Your task to perform on an android device: open the mobile data screen to see how much data has been used Image 0: 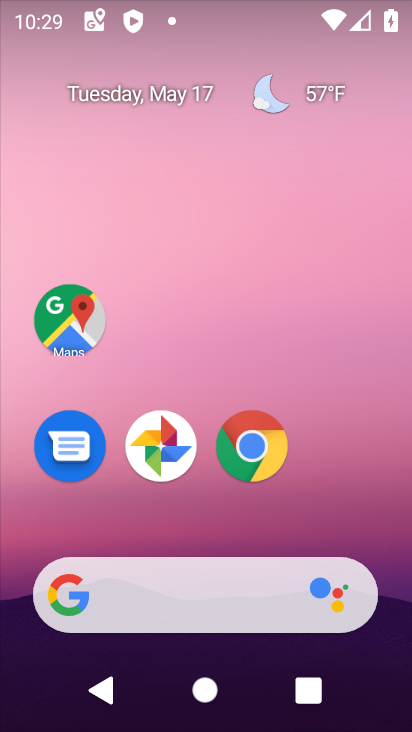
Step 0: drag from (217, 601) to (188, 40)
Your task to perform on an android device: open the mobile data screen to see how much data has been used Image 1: 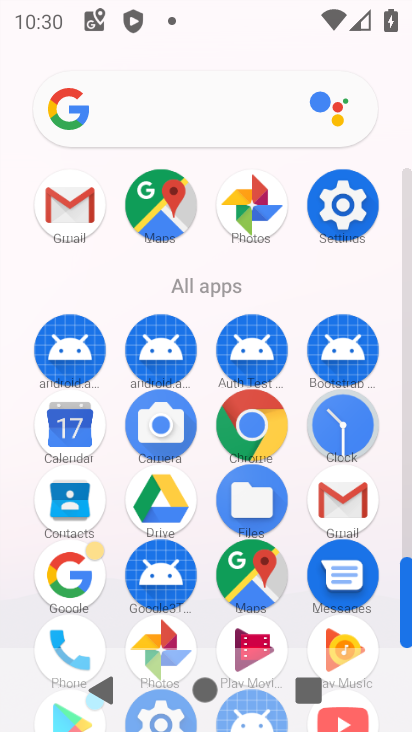
Step 1: click (332, 209)
Your task to perform on an android device: open the mobile data screen to see how much data has been used Image 2: 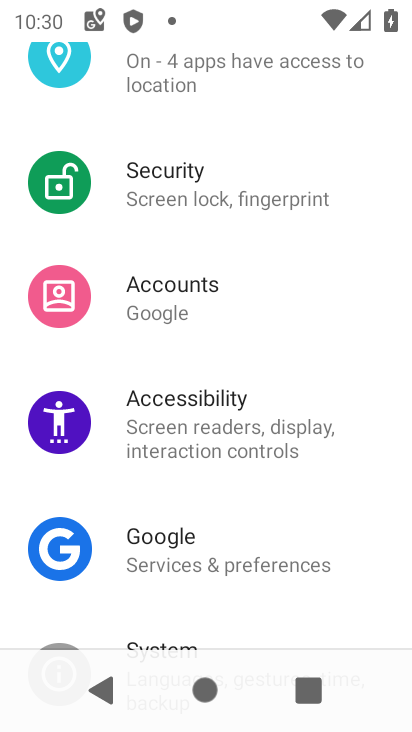
Step 2: drag from (176, 197) to (167, 517)
Your task to perform on an android device: open the mobile data screen to see how much data has been used Image 3: 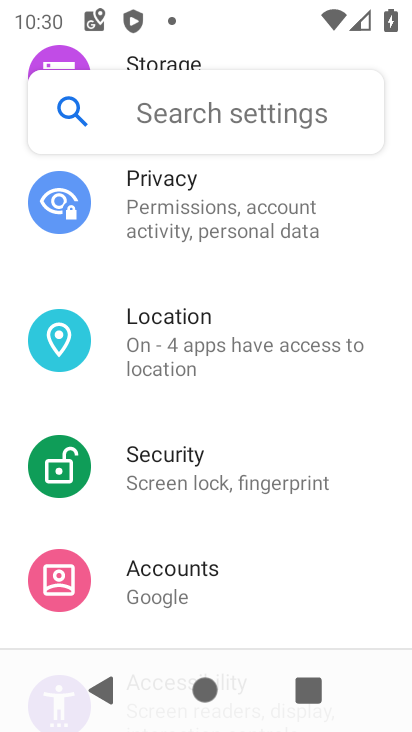
Step 3: drag from (201, 268) to (199, 637)
Your task to perform on an android device: open the mobile data screen to see how much data has been used Image 4: 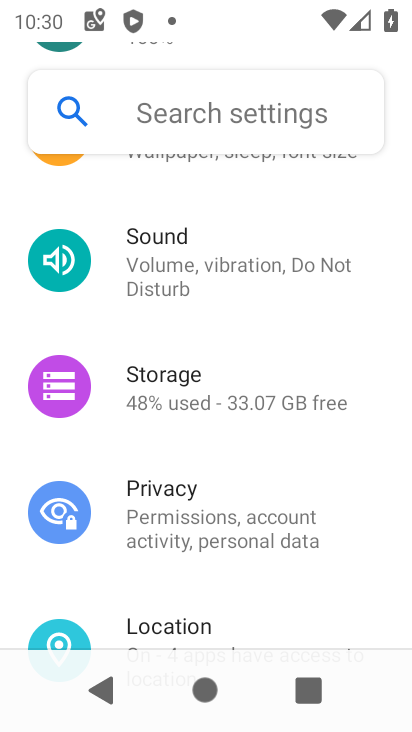
Step 4: drag from (238, 314) to (191, 663)
Your task to perform on an android device: open the mobile data screen to see how much data has been used Image 5: 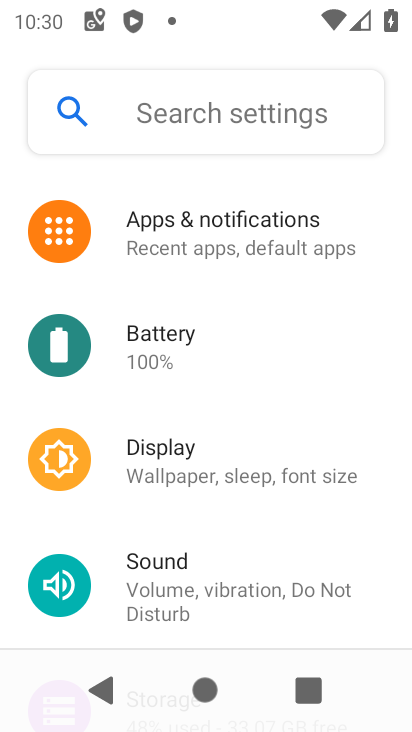
Step 5: drag from (233, 256) to (205, 683)
Your task to perform on an android device: open the mobile data screen to see how much data has been used Image 6: 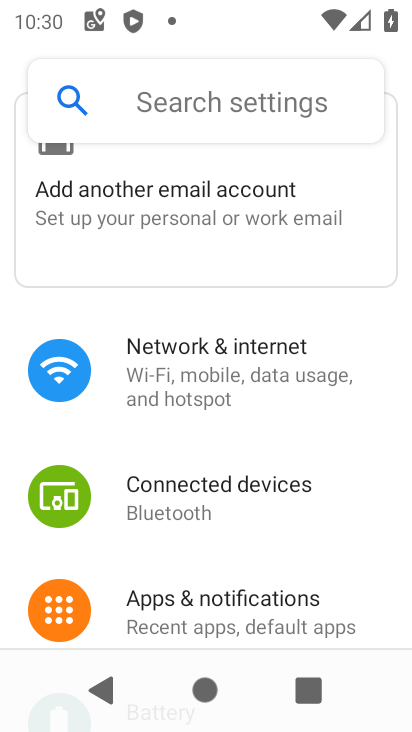
Step 6: click (163, 368)
Your task to perform on an android device: open the mobile data screen to see how much data has been used Image 7: 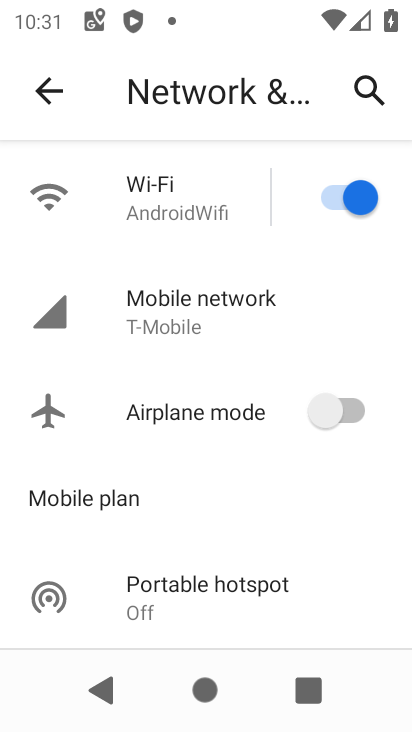
Step 7: click (141, 315)
Your task to perform on an android device: open the mobile data screen to see how much data has been used Image 8: 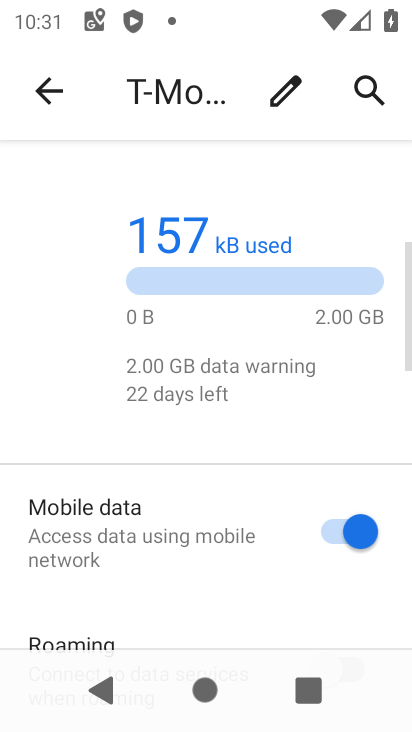
Step 8: task complete